Your task to perform on an android device: Open Yahoo.com Image 0: 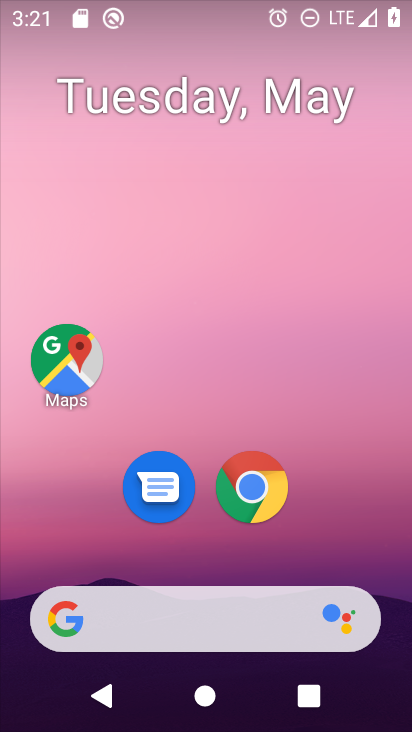
Step 0: click (259, 490)
Your task to perform on an android device: Open Yahoo.com Image 1: 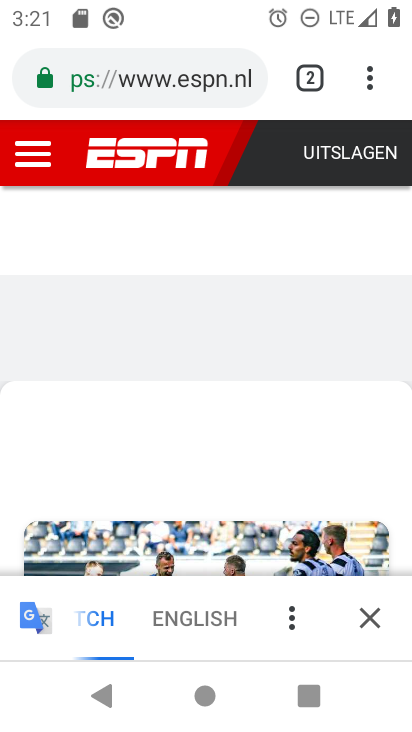
Step 1: click (296, 85)
Your task to perform on an android device: Open Yahoo.com Image 2: 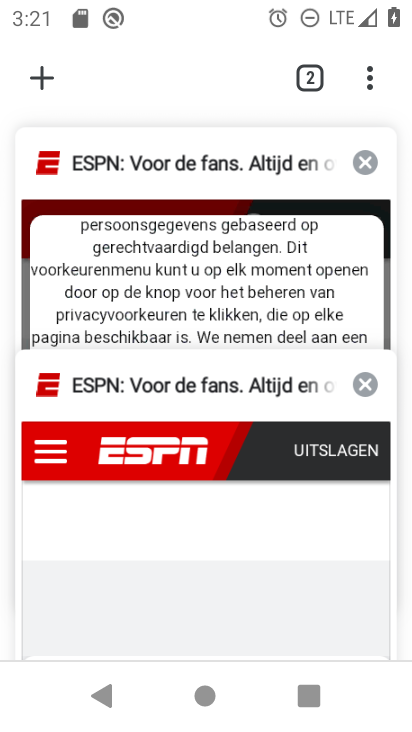
Step 2: click (374, 165)
Your task to perform on an android device: Open Yahoo.com Image 3: 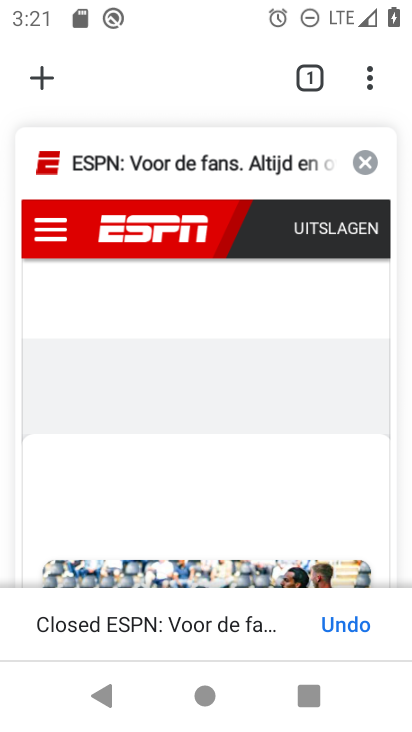
Step 3: click (365, 166)
Your task to perform on an android device: Open Yahoo.com Image 4: 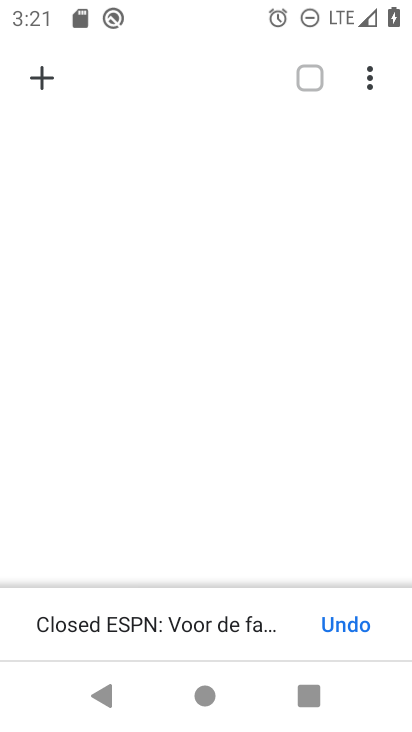
Step 4: click (34, 83)
Your task to perform on an android device: Open Yahoo.com Image 5: 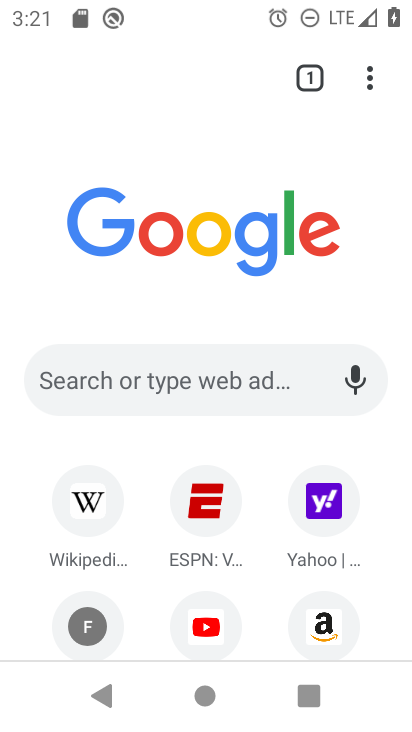
Step 5: click (334, 514)
Your task to perform on an android device: Open Yahoo.com Image 6: 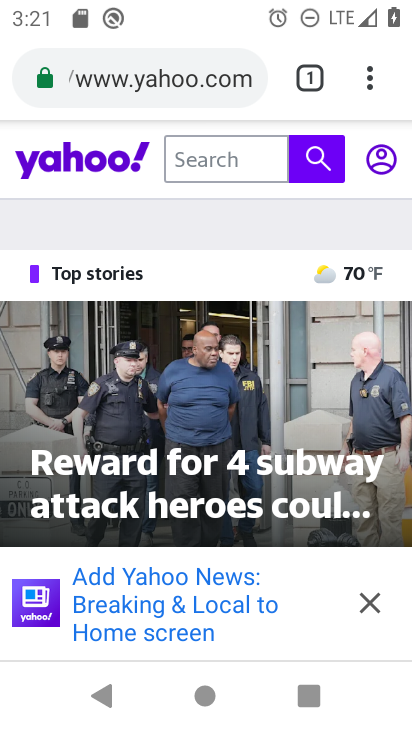
Step 6: task complete